Your task to perform on an android device: Show me the alarms in the clock app Image 0: 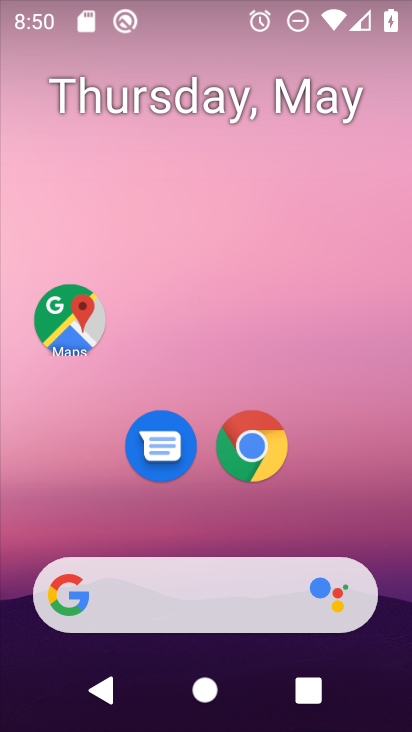
Step 0: drag from (332, 469) to (298, 132)
Your task to perform on an android device: Show me the alarms in the clock app Image 1: 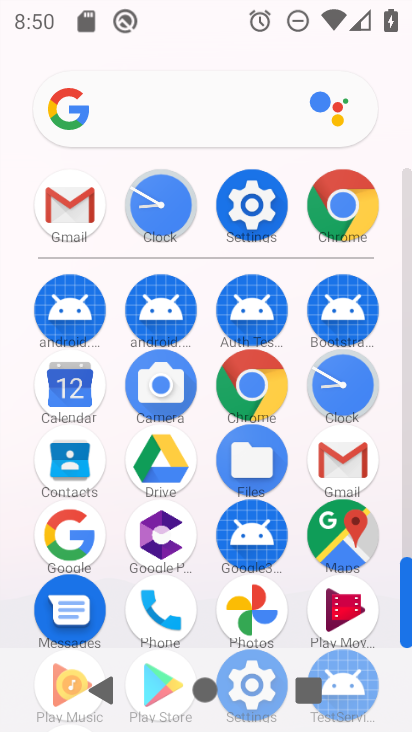
Step 1: click (342, 389)
Your task to perform on an android device: Show me the alarms in the clock app Image 2: 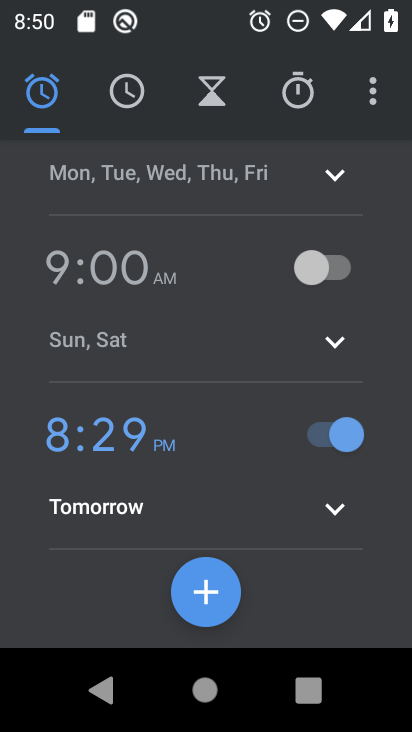
Step 2: task complete